Your task to perform on an android device: Open Youtube and go to "Your channel" Image 0: 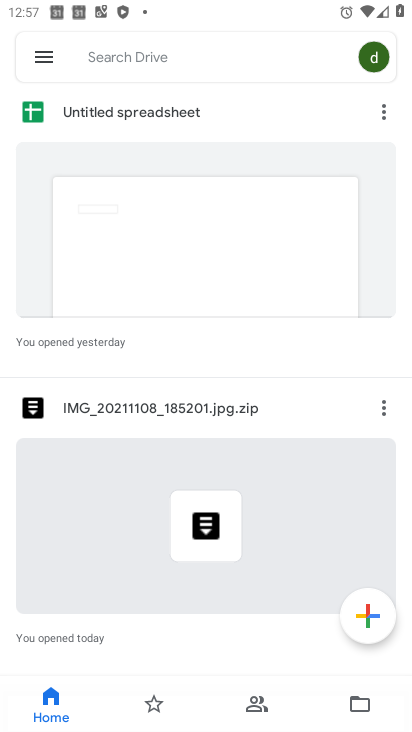
Step 0: press home button
Your task to perform on an android device: Open Youtube and go to "Your channel" Image 1: 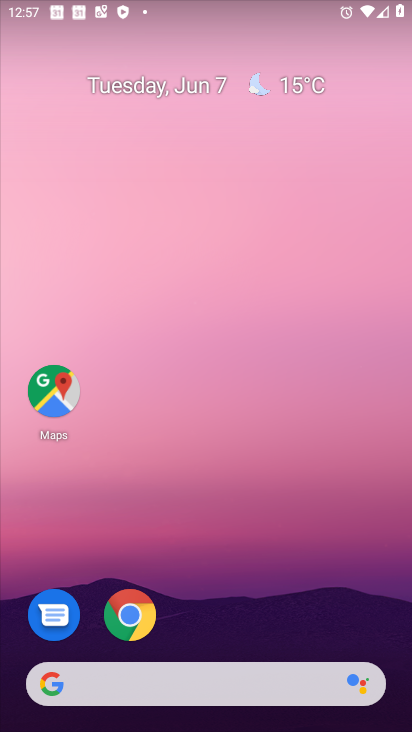
Step 1: drag from (228, 599) to (226, 78)
Your task to perform on an android device: Open Youtube and go to "Your channel" Image 2: 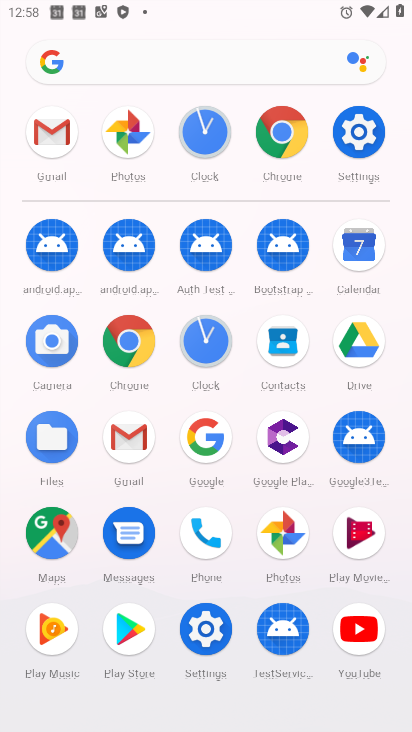
Step 2: click (382, 624)
Your task to perform on an android device: Open Youtube and go to "Your channel" Image 3: 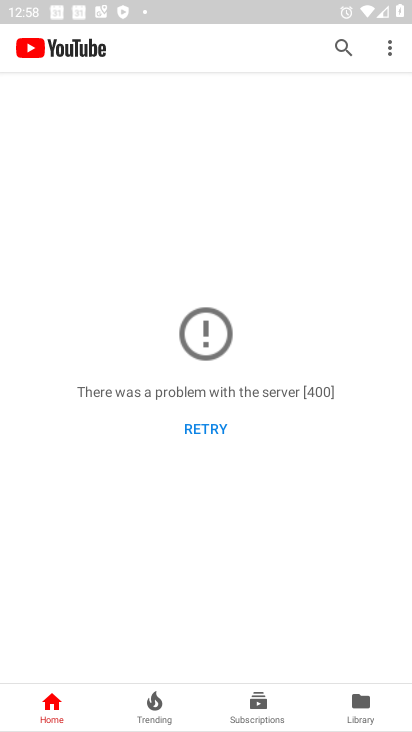
Step 3: click (369, 704)
Your task to perform on an android device: Open Youtube and go to "Your channel" Image 4: 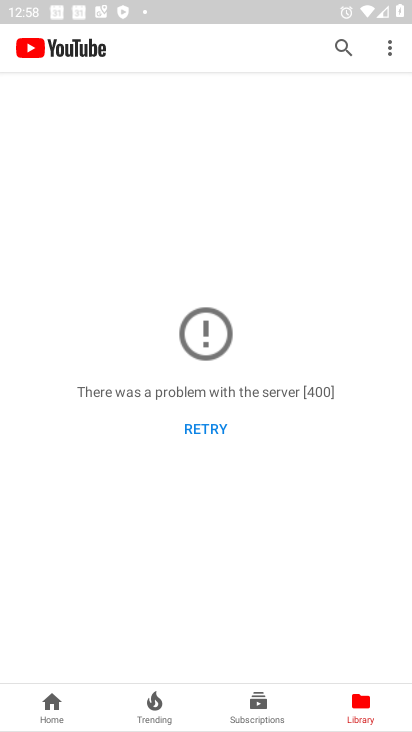
Step 4: click (388, 48)
Your task to perform on an android device: Open Youtube and go to "Your channel" Image 5: 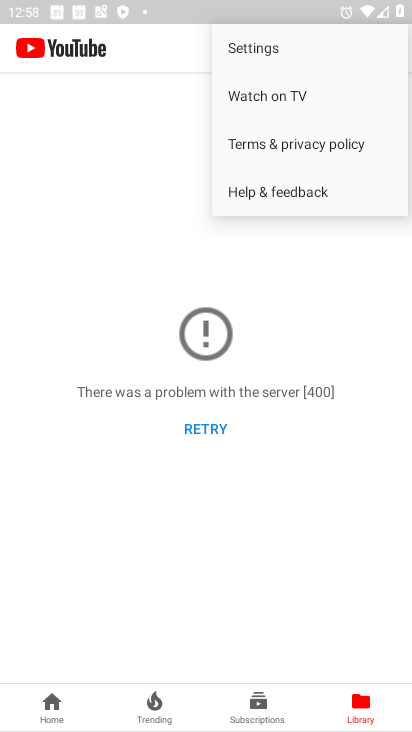
Step 5: click (275, 62)
Your task to perform on an android device: Open Youtube and go to "Your channel" Image 6: 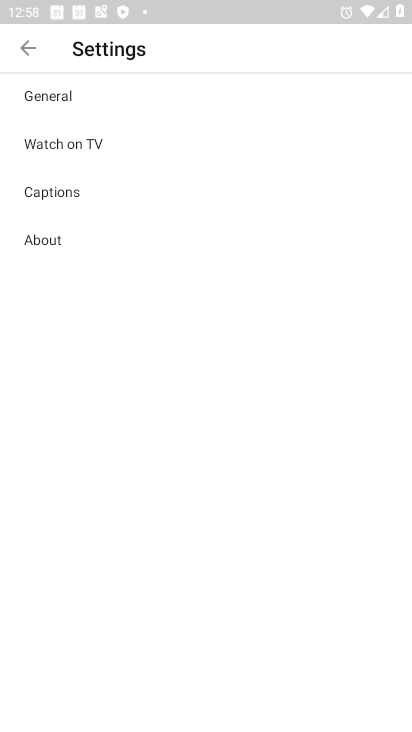
Step 6: click (83, 252)
Your task to perform on an android device: Open Youtube and go to "Your channel" Image 7: 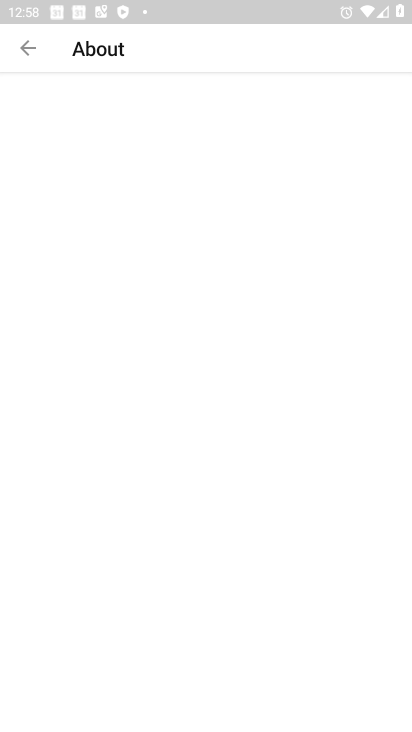
Step 7: task complete